Your task to perform on an android device: turn vacation reply on in the gmail app Image 0: 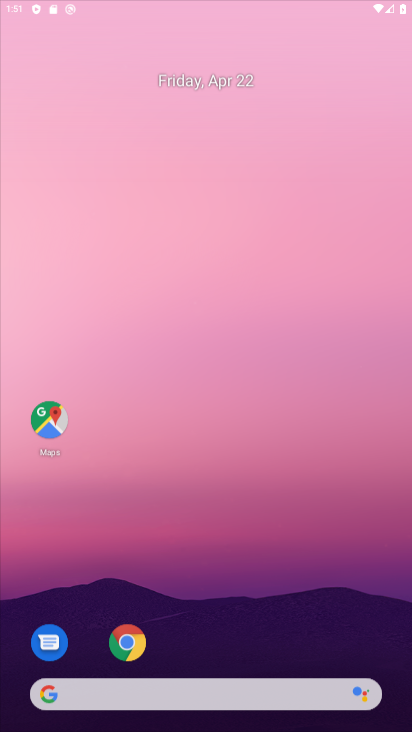
Step 0: click (195, 133)
Your task to perform on an android device: turn vacation reply on in the gmail app Image 1: 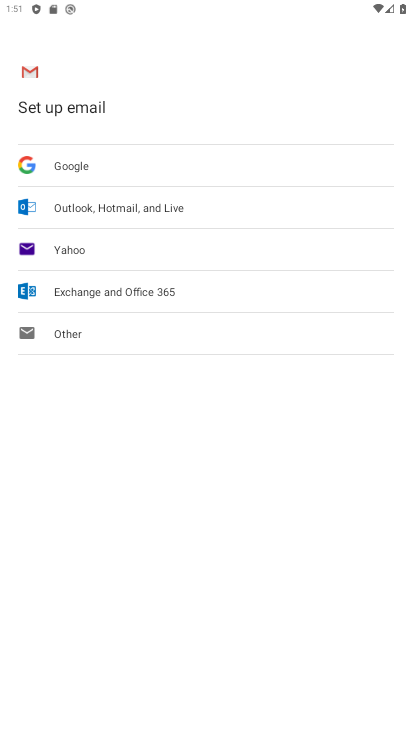
Step 1: press home button
Your task to perform on an android device: turn vacation reply on in the gmail app Image 2: 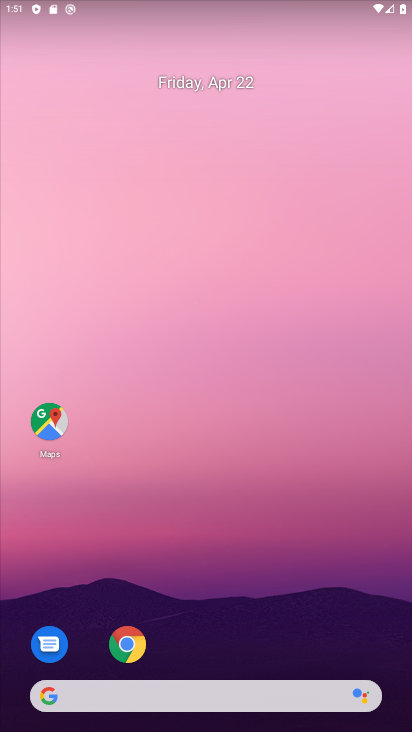
Step 2: drag from (228, 632) to (185, 135)
Your task to perform on an android device: turn vacation reply on in the gmail app Image 3: 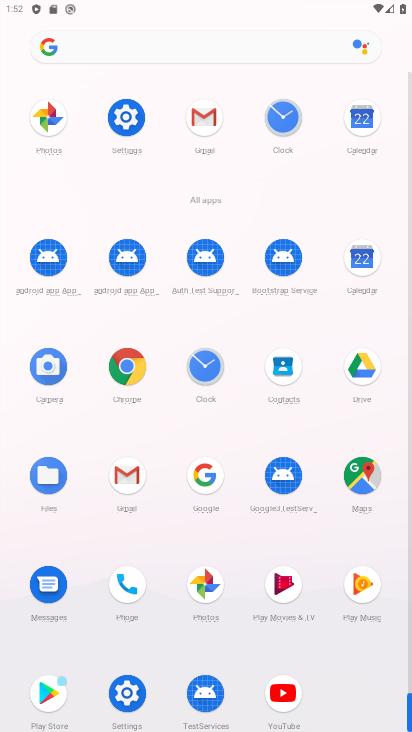
Step 3: drag from (259, 619) to (254, 329)
Your task to perform on an android device: turn vacation reply on in the gmail app Image 4: 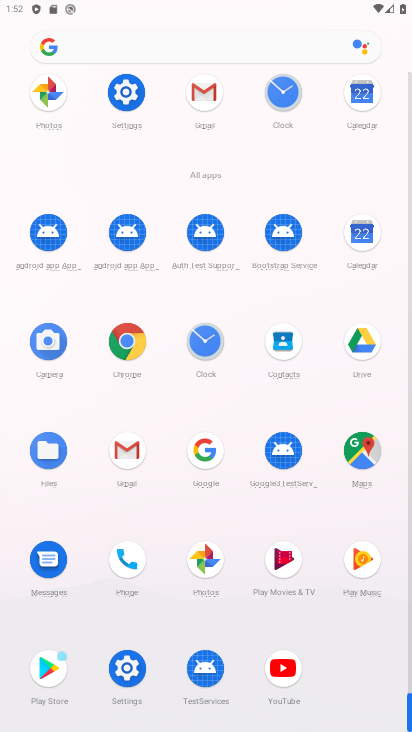
Step 4: drag from (277, 625) to (320, 335)
Your task to perform on an android device: turn vacation reply on in the gmail app Image 5: 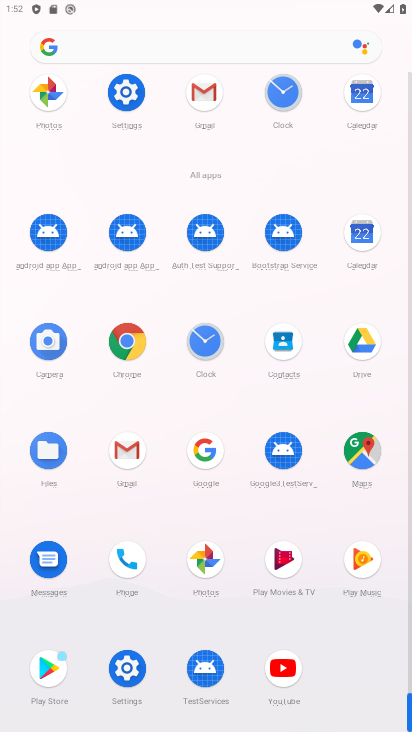
Step 5: click (113, 446)
Your task to perform on an android device: turn vacation reply on in the gmail app Image 6: 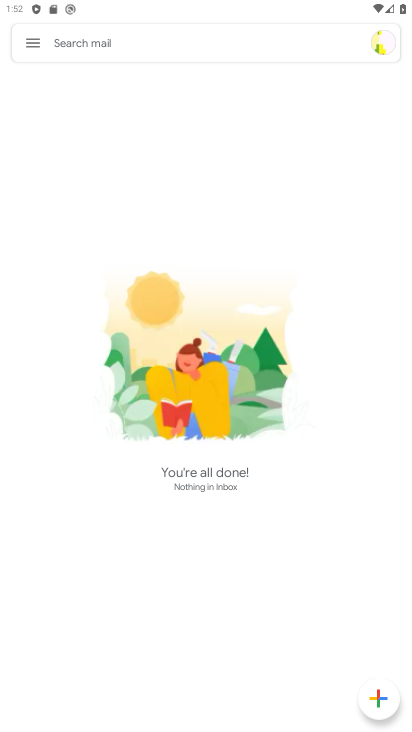
Step 6: click (28, 43)
Your task to perform on an android device: turn vacation reply on in the gmail app Image 7: 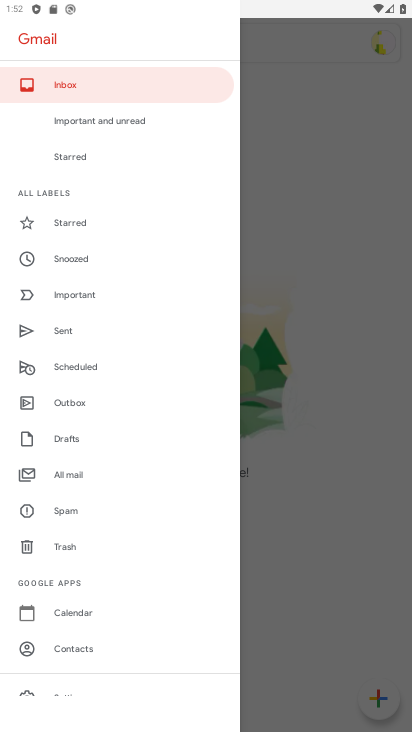
Step 7: drag from (95, 639) to (118, 372)
Your task to perform on an android device: turn vacation reply on in the gmail app Image 8: 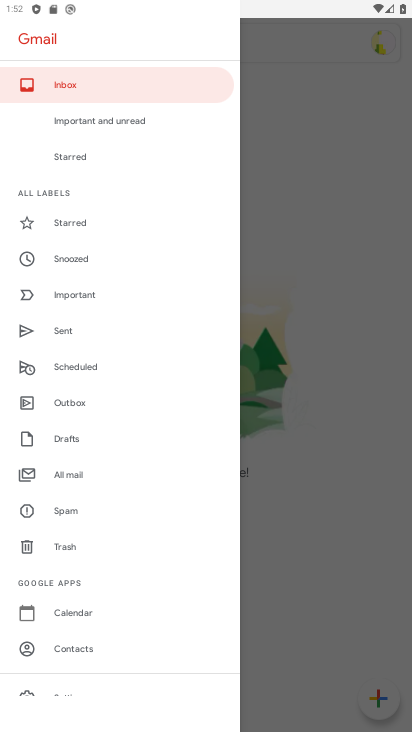
Step 8: drag from (100, 625) to (132, 306)
Your task to perform on an android device: turn vacation reply on in the gmail app Image 9: 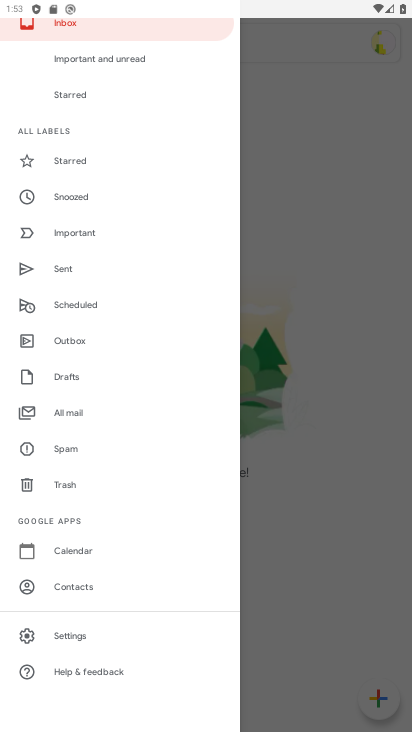
Step 9: click (63, 640)
Your task to perform on an android device: turn vacation reply on in the gmail app Image 10: 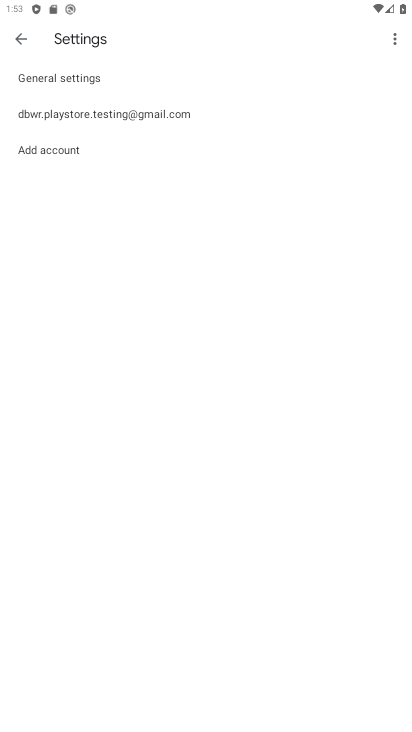
Step 10: click (141, 117)
Your task to perform on an android device: turn vacation reply on in the gmail app Image 11: 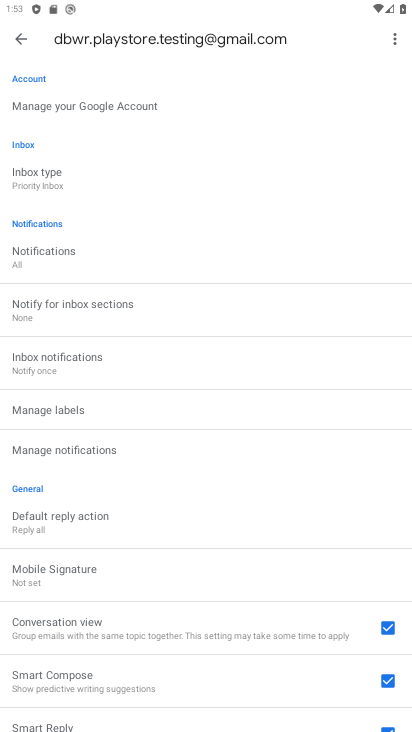
Step 11: drag from (160, 659) to (191, 321)
Your task to perform on an android device: turn vacation reply on in the gmail app Image 12: 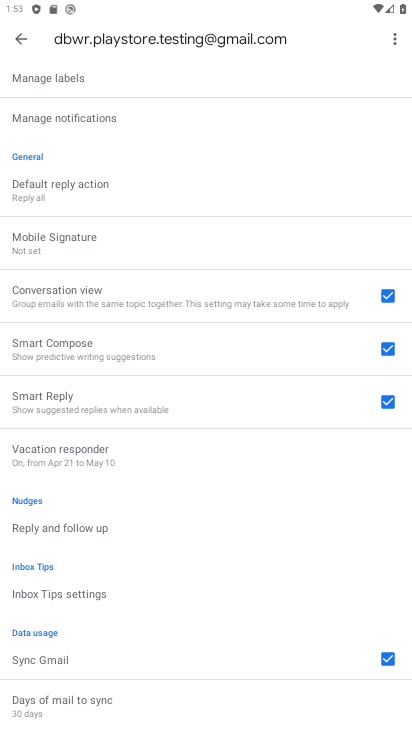
Step 12: click (94, 464)
Your task to perform on an android device: turn vacation reply on in the gmail app Image 13: 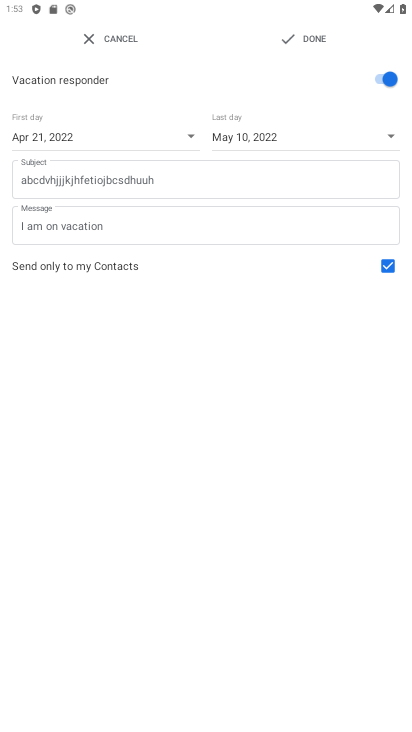
Step 13: task complete